Your task to perform on an android device: Open settings on Google Maps Image 0: 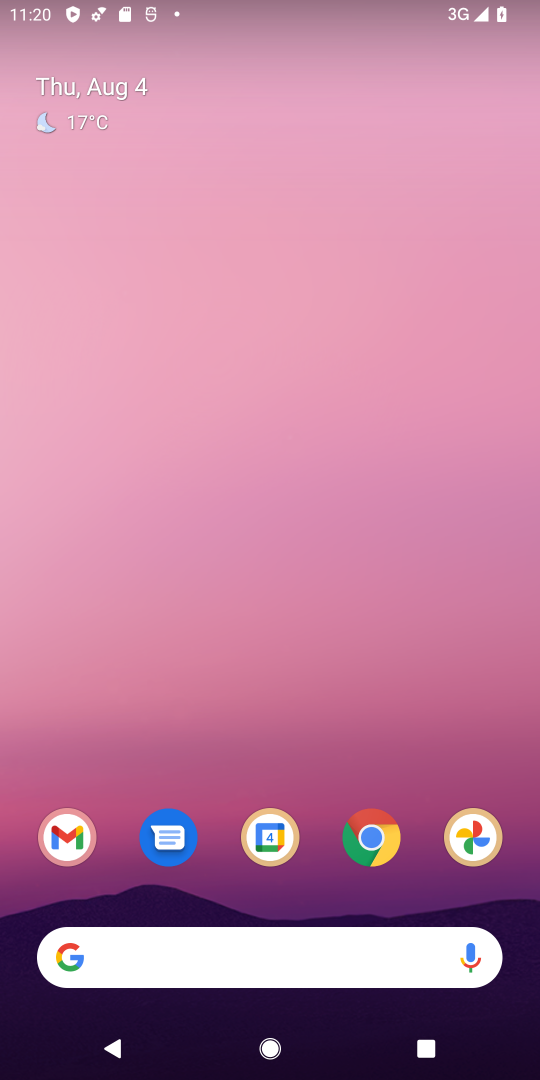
Step 0: drag from (428, 895) to (13, 276)
Your task to perform on an android device: Open settings on Google Maps Image 1: 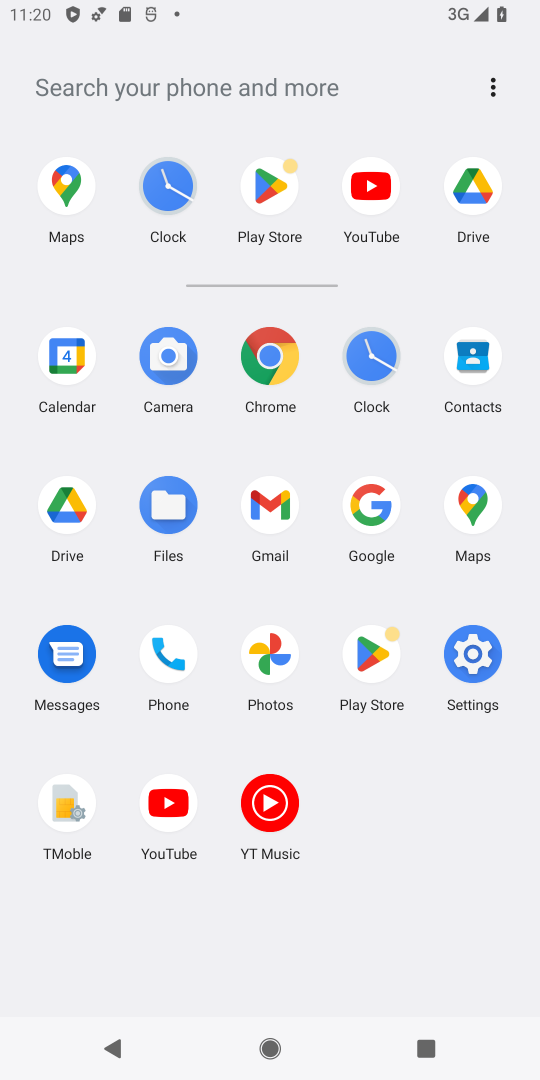
Step 1: click (466, 534)
Your task to perform on an android device: Open settings on Google Maps Image 2: 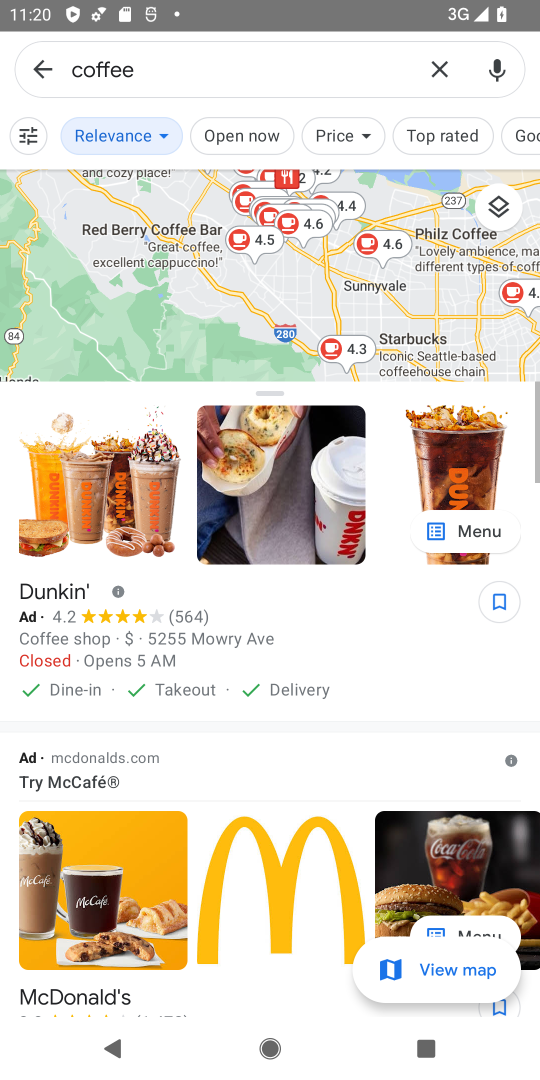
Step 2: click (429, 56)
Your task to perform on an android device: Open settings on Google Maps Image 3: 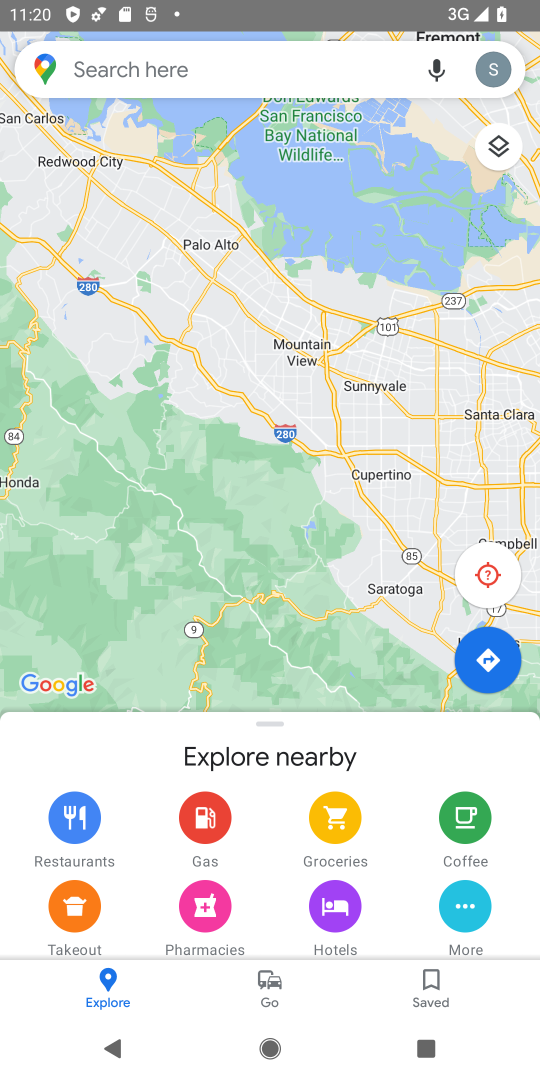
Step 3: click (487, 64)
Your task to perform on an android device: Open settings on Google Maps Image 4: 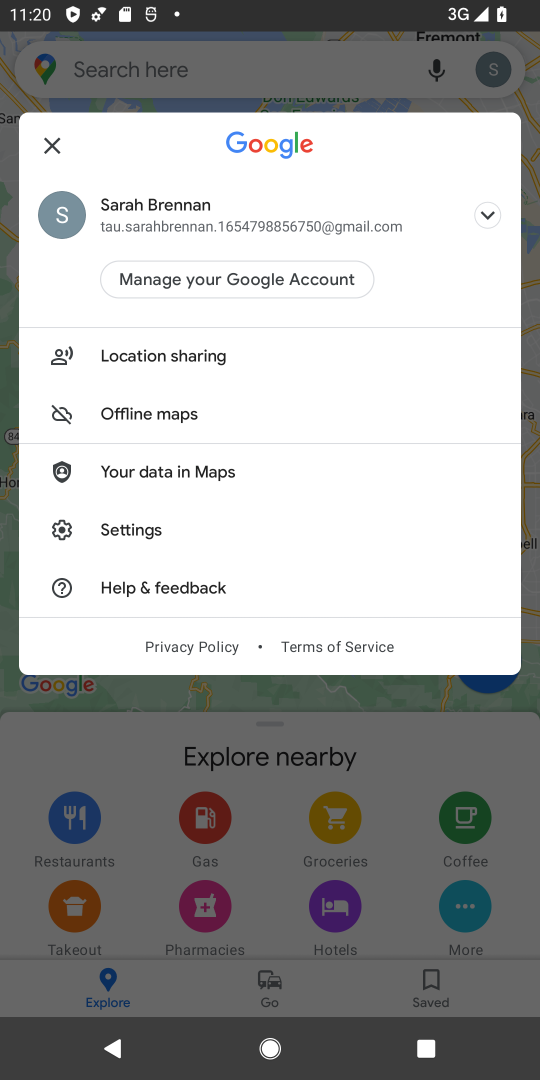
Step 4: click (138, 536)
Your task to perform on an android device: Open settings on Google Maps Image 5: 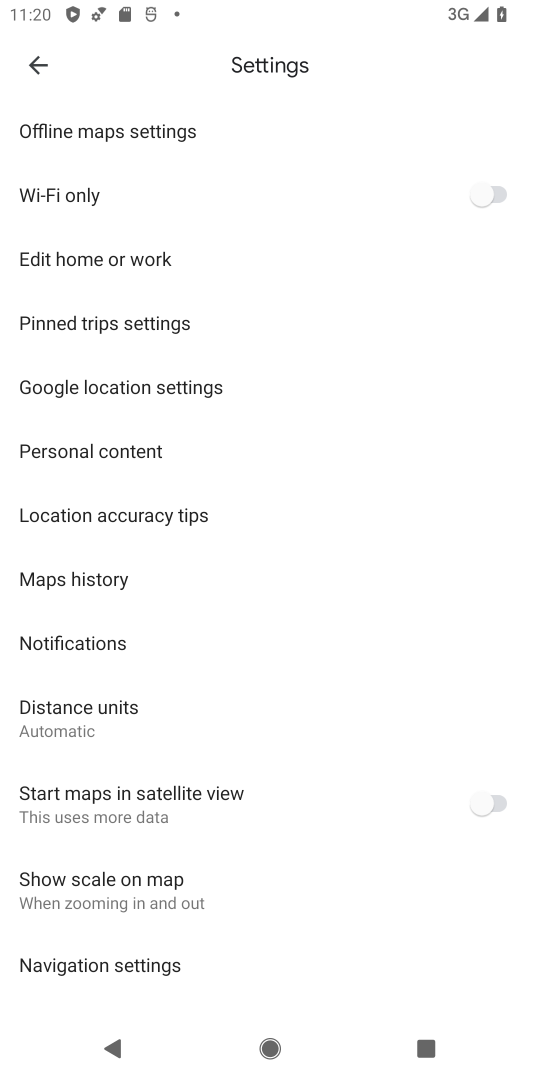
Step 5: task complete